Your task to perform on an android device: make emails show in primary in the gmail app Image 0: 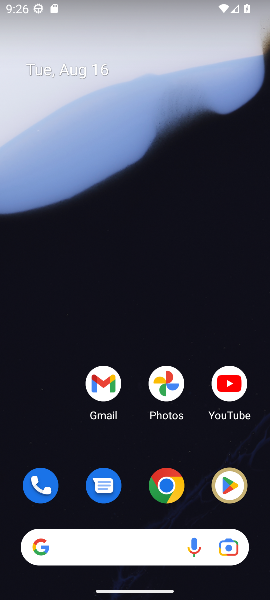
Step 0: click (108, 394)
Your task to perform on an android device: make emails show in primary in the gmail app Image 1: 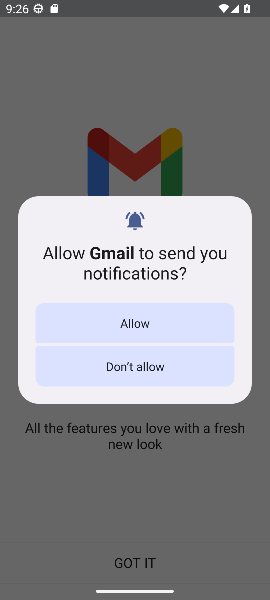
Step 1: click (140, 330)
Your task to perform on an android device: make emails show in primary in the gmail app Image 2: 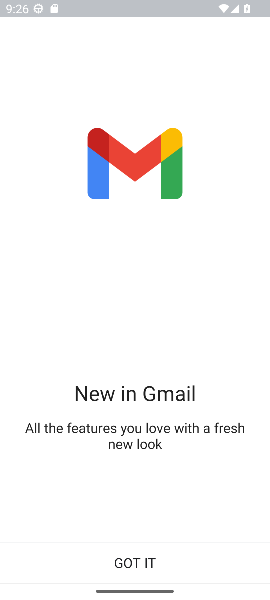
Step 2: click (146, 557)
Your task to perform on an android device: make emails show in primary in the gmail app Image 3: 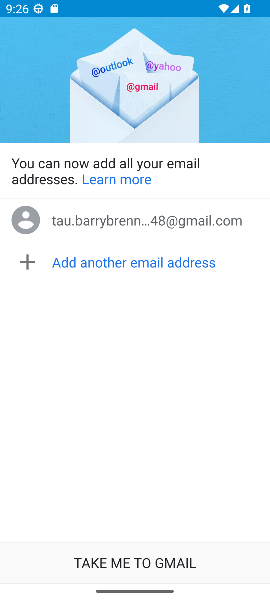
Step 3: click (132, 551)
Your task to perform on an android device: make emails show in primary in the gmail app Image 4: 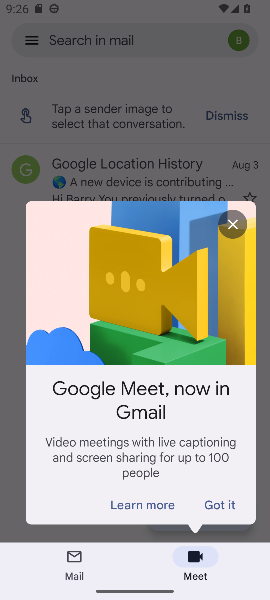
Step 4: click (213, 505)
Your task to perform on an android device: make emails show in primary in the gmail app Image 5: 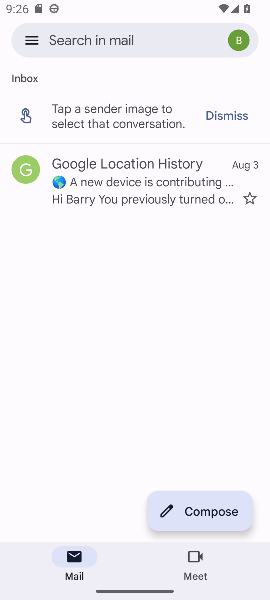
Step 5: click (27, 42)
Your task to perform on an android device: make emails show in primary in the gmail app Image 6: 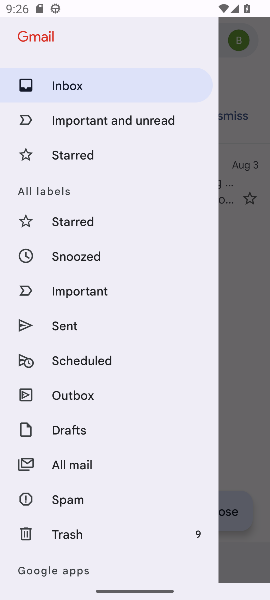
Step 6: drag from (99, 541) to (85, 353)
Your task to perform on an android device: make emails show in primary in the gmail app Image 7: 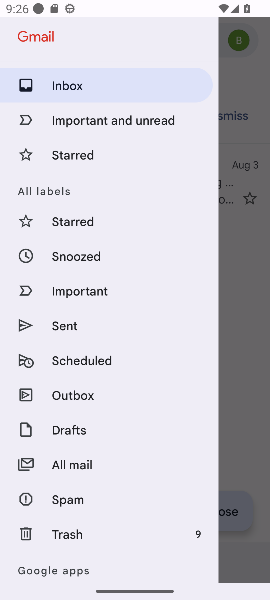
Step 7: drag from (97, 527) to (113, 304)
Your task to perform on an android device: make emails show in primary in the gmail app Image 8: 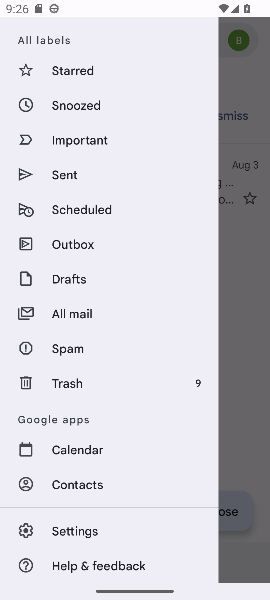
Step 8: click (108, 526)
Your task to perform on an android device: make emails show in primary in the gmail app Image 9: 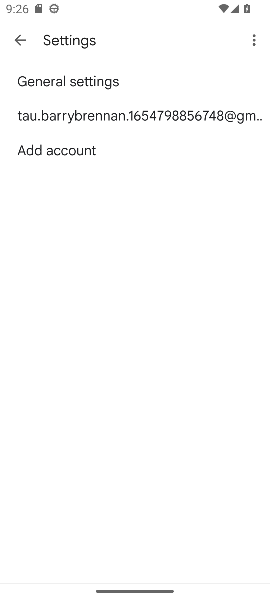
Step 9: click (78, 124)
Your task to perform on an android device: make emails show in primary in the gmail app Image 10: 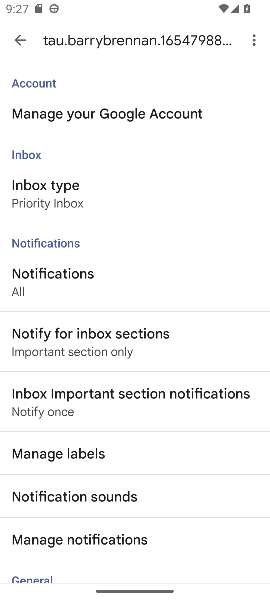
Step 10: click (93, 195)
Your task to perform on an android device: make emails show in primary in the gmail app Image 11: 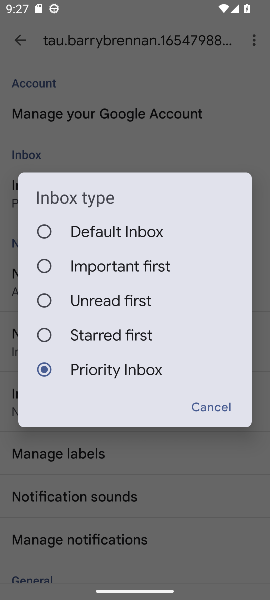
Step 11: click (101, 234)
Your task to perform on an android device: make emails show in primary in the gmail app Image 12: 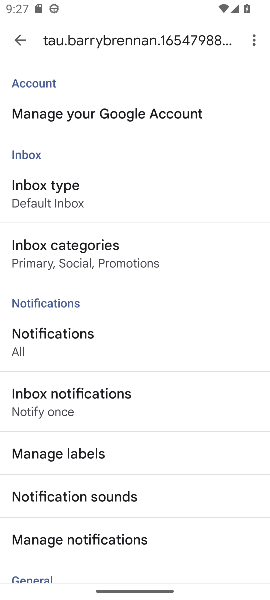
Step 12: click (97, 251)
Your task to perform on an android device: make emails show in primary in the gmail app Image 13: 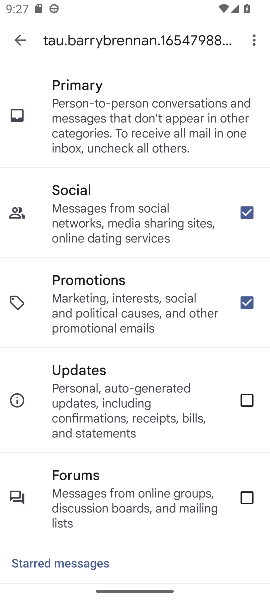
Step 13: click (251, 302)
Your task to perform on an android device: make emails show in primary in the gmail app Image 14: 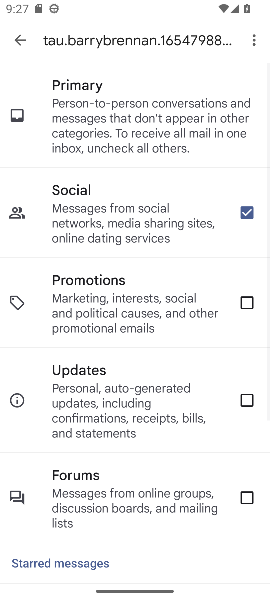
Step 14: click (246, 213)
Your task to perform on an android device: make emails show in primary in the gmail app Image 15: 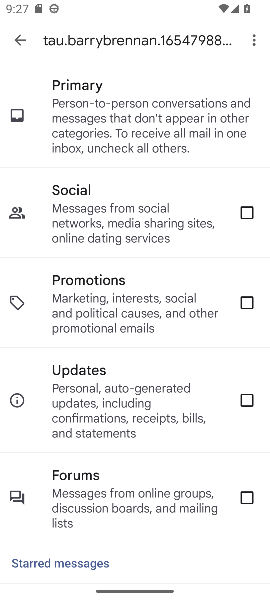
Step 15: click (24, 45)
Your task to perform on an android device: make emails show in primary in the gmail app Image 16: 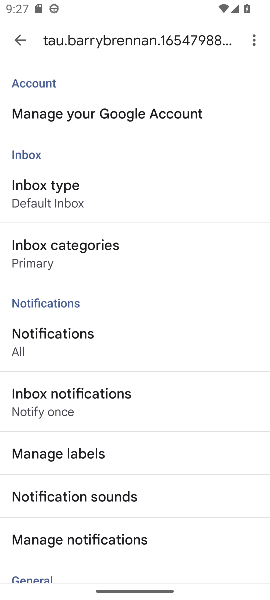
Step 16: task complete